Your task to perform on an android device: change the clock display to analog Image 0: 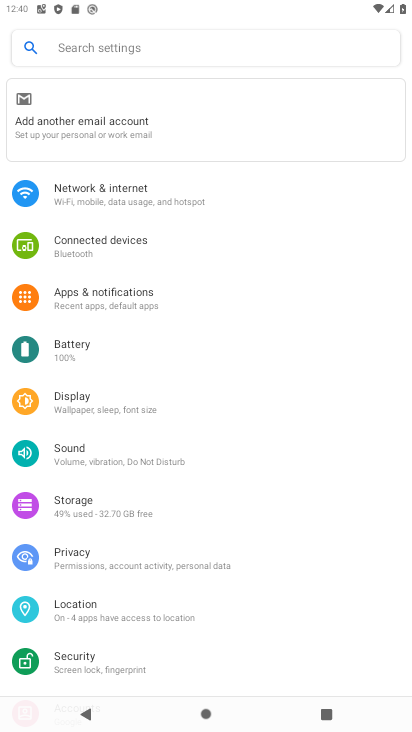
Step 0: press home button
Your task to perform on an android device: change the clock display to analog Image 1: 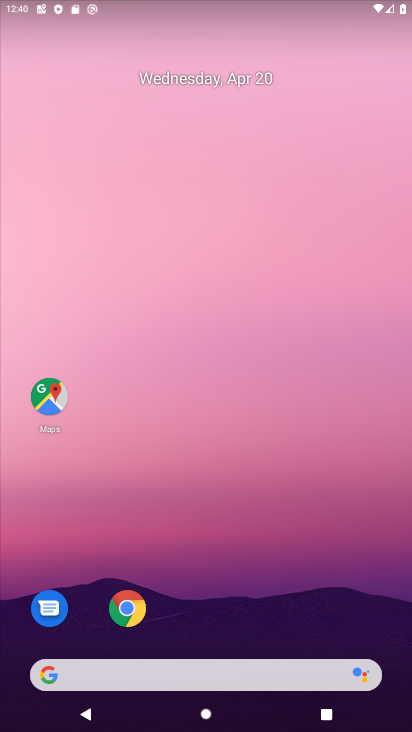
Step 1: drag from (304, 602) to (250, 207)
Your task to perform on an android device: change the clock display to analog Image 2: 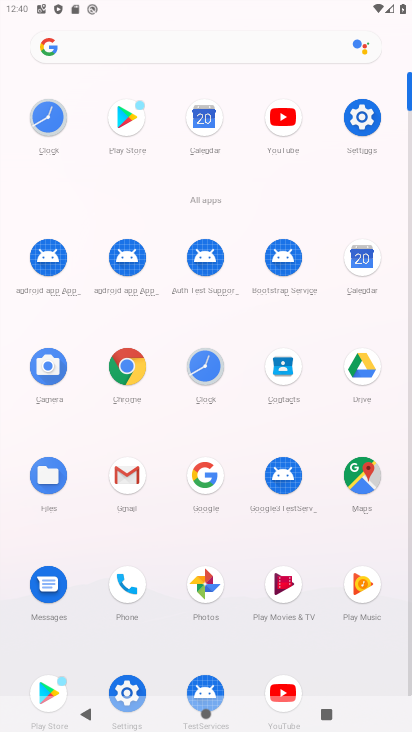
Step 2: click (47, 117)
Your task to perform on an android device: change the clock display to analog Image 3: 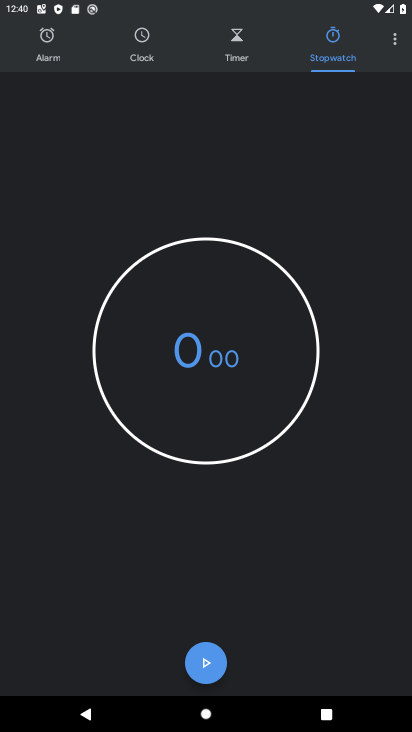
Step 3: click (398, 44)
Your task to perform on an android device: change the clock display to analog Image 4: 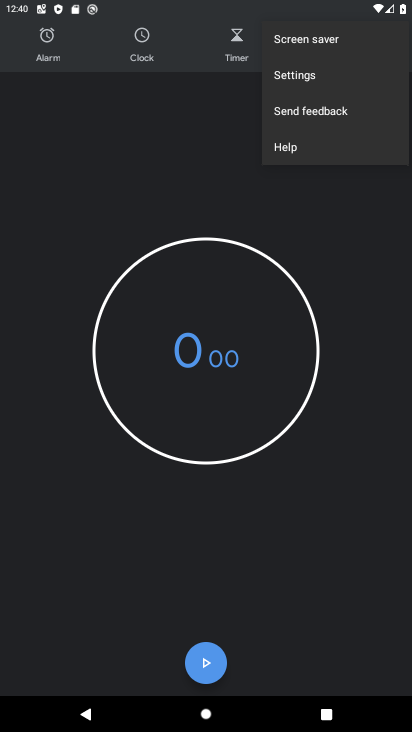
Step 4: click (368, 80)
Your task to perform on an android device: change the clock display to analog Image 5: 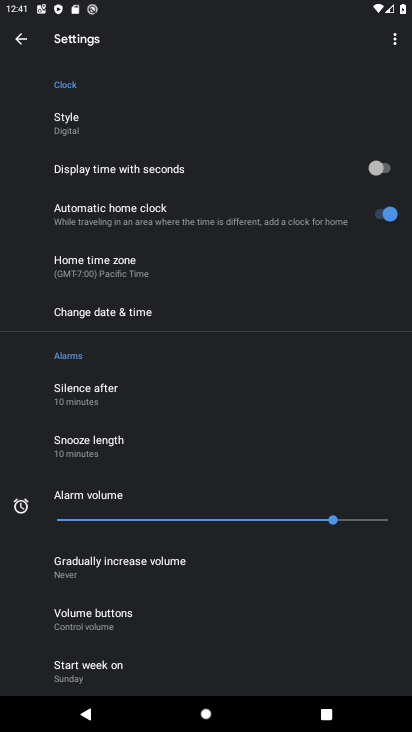
Step 5: click (114, 129)
Your task to perform on an android device: change the clock display to analog Image 6: 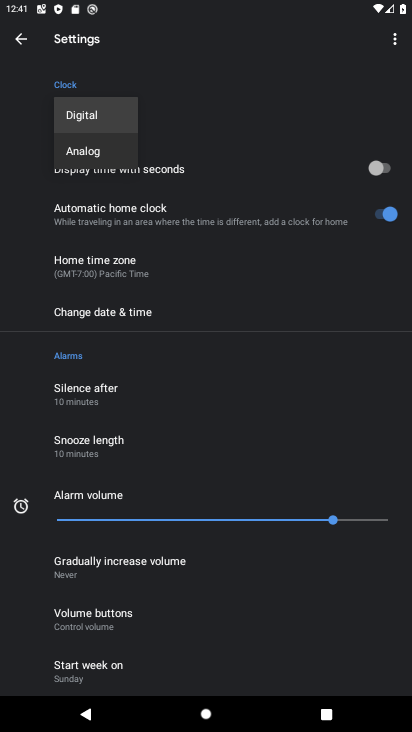
Step 6: click (114, 150)
Your task to perform on an android device: change the clock display to analog Image 7: 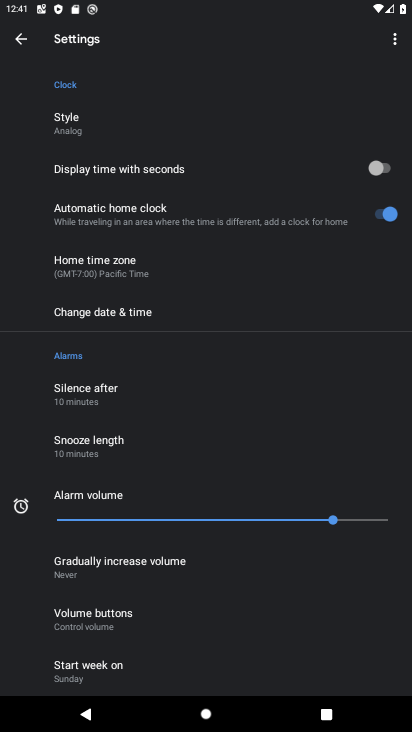
Step 7: task complete